Your task to perform on an android device: What's the weather? Image 0: 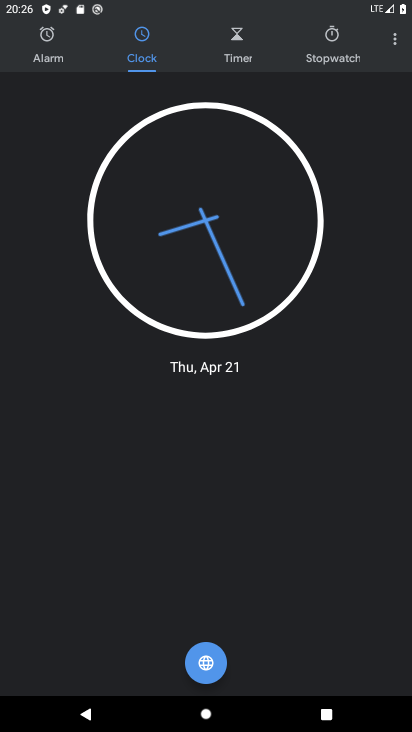
Step 0: press home button
Your task to perform on an android device: What's the weather? Image 1: 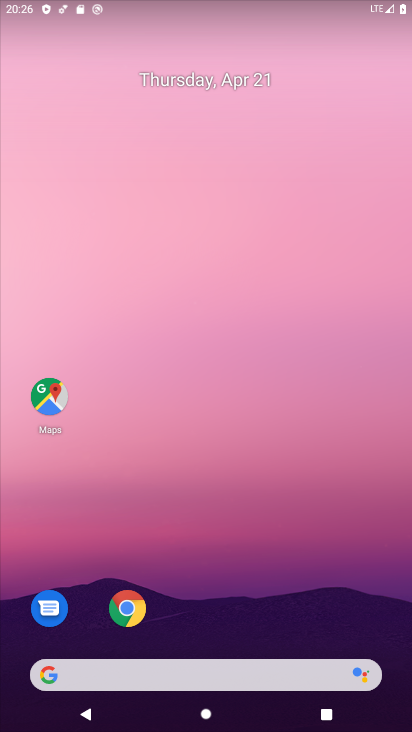
Step 1: click (254, 669)
Your task to perform on an android device: What's the weather? Image 2: 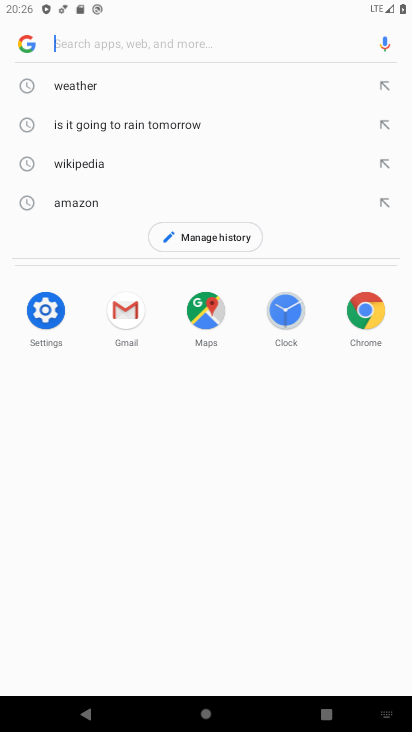
Step 2: click (118, 92)
Your task to perform on an android device: What's the weather? Image 3: 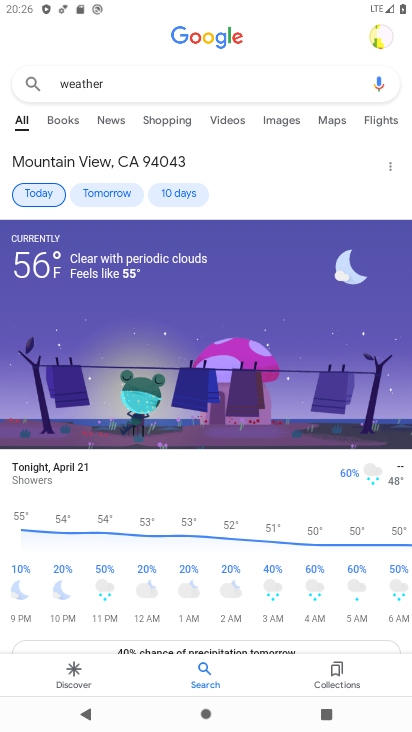
Step 3: task complete